Your task to perform on an android device: Go to calendar. Show me events next week Image 0: 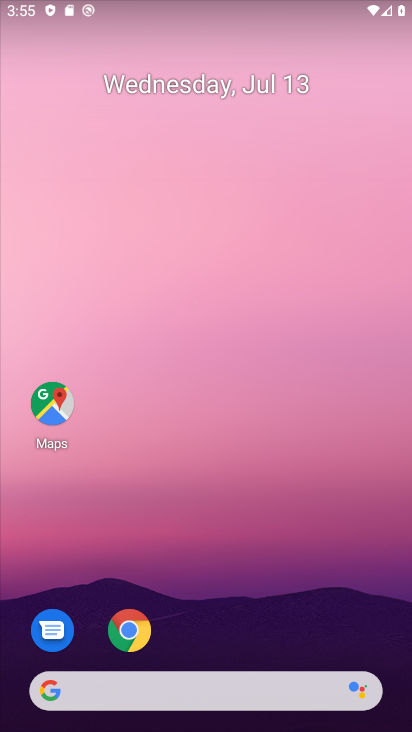
Step 0: drag from (242, 646) to (254, 328)
Your task to perform on an android device: Go to calendar. Show me events next week Image 1: 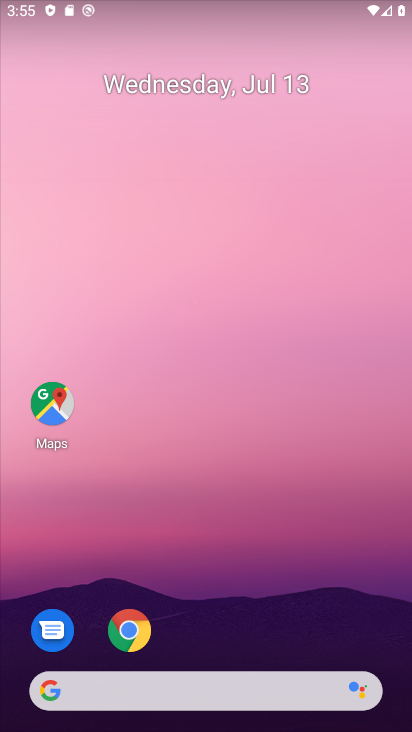
Step 1: drag from (249, 624) to (229, 260)
Your task to perform on an android device: Go to calendar. Show me events next week Image 2: 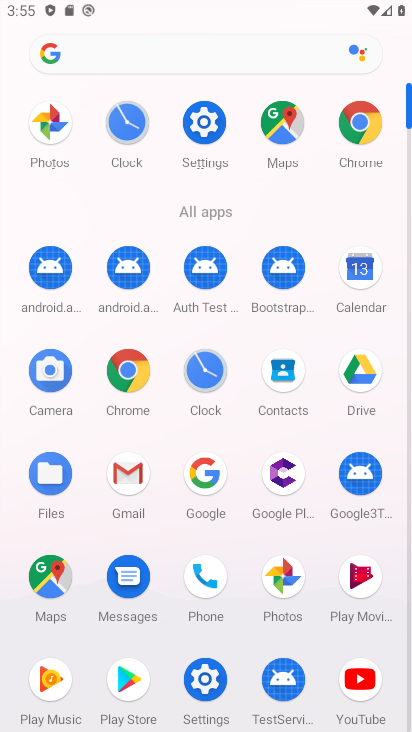
Step 2: click (361, 283)
Your task to perform on an android device: Go to calendar. Show me events next week Image 3: 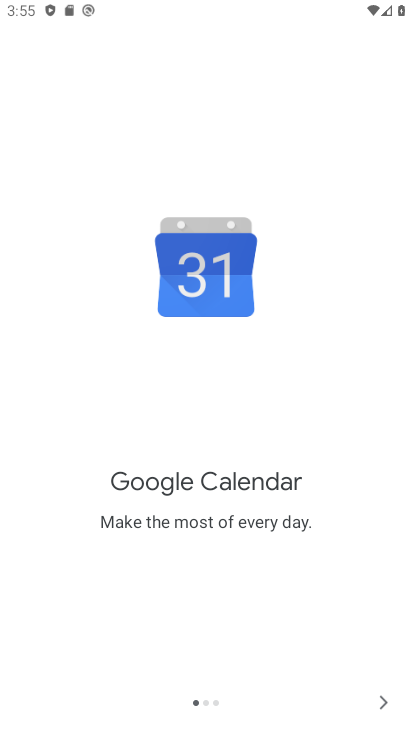
Step 3: click (386, 703)
Your task to perform on an android device: Go to calendar. Show me events next week Image 4: 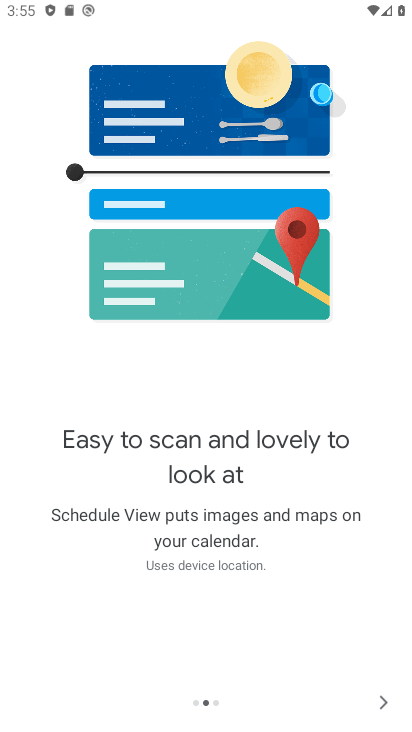
Step 4: click (384, 700)
Your task to perform on an android device: Go to calendar. Show me events next week Image 5: 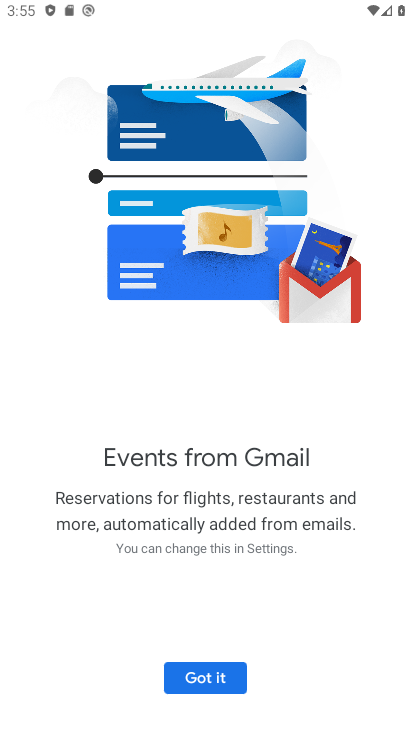
Step 5: click (191, 679)
Your task to perform on an android device: Go to calendar. Show me events next week Image 6: 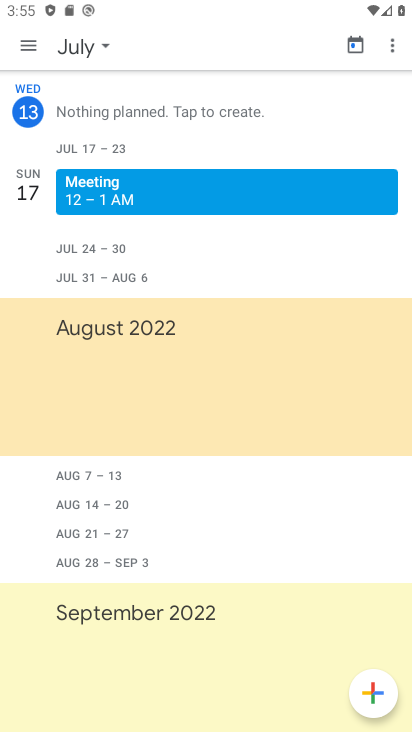
Step 6: click (28, 47)
Your task to perform on an android device: Go to calendar. Show me events next week Image 7: 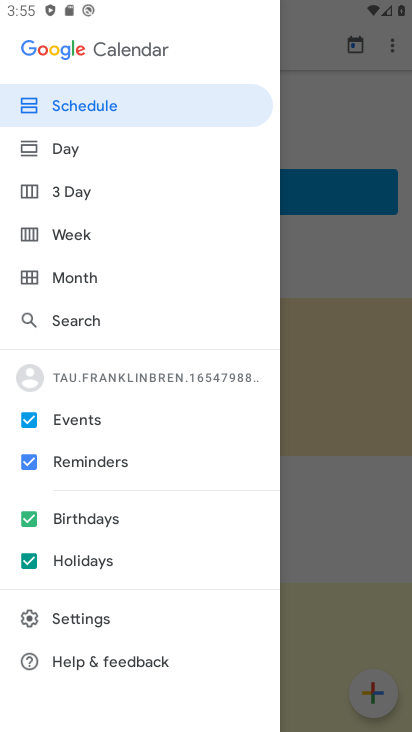
Step 7: click (63, 234)
Your task to perform on an android device: Go to calendar. Show me events next week Image 8: 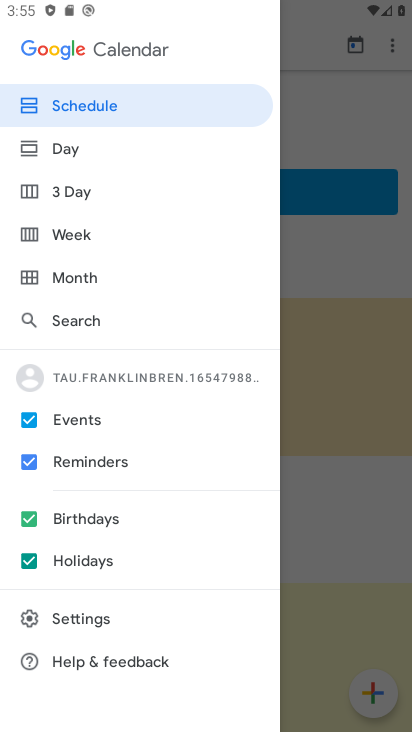
Step 8: click (63, 234)
Your task to perform on an android device: Go to calendar. Show me events next week Image 9: 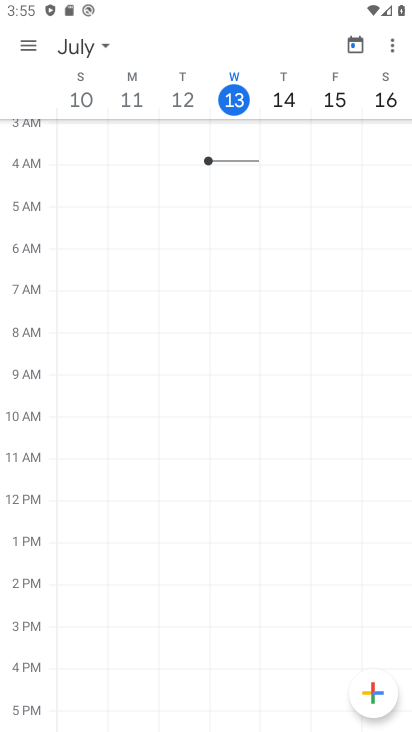
Step 9: task complete